Your task to perform on an android device: turn on notifications settings in the gmail app Image 0: 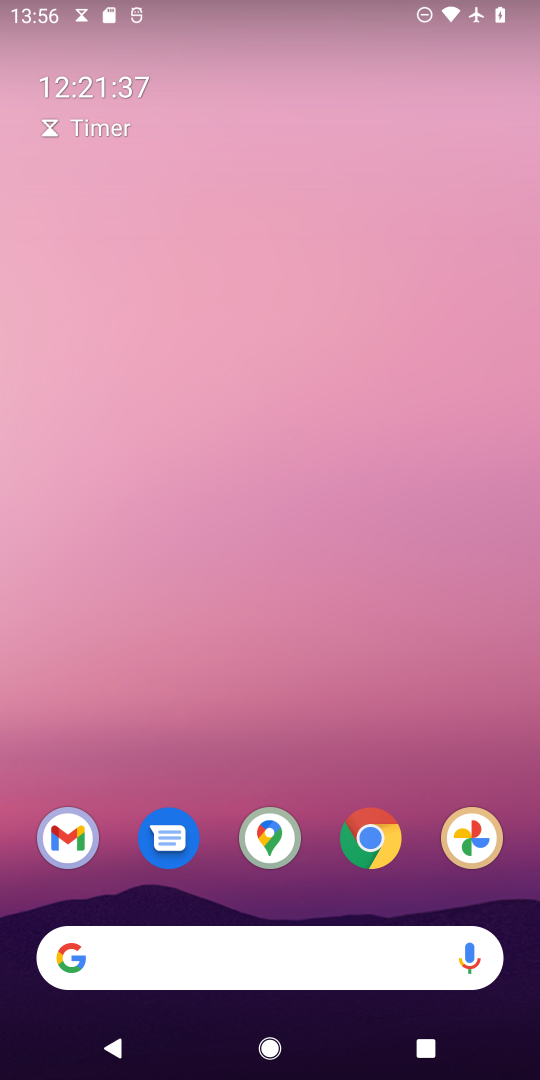
Step 0: press home button
Your task to perform on an android device: turn on notifications settings in the gmail app Image 1: 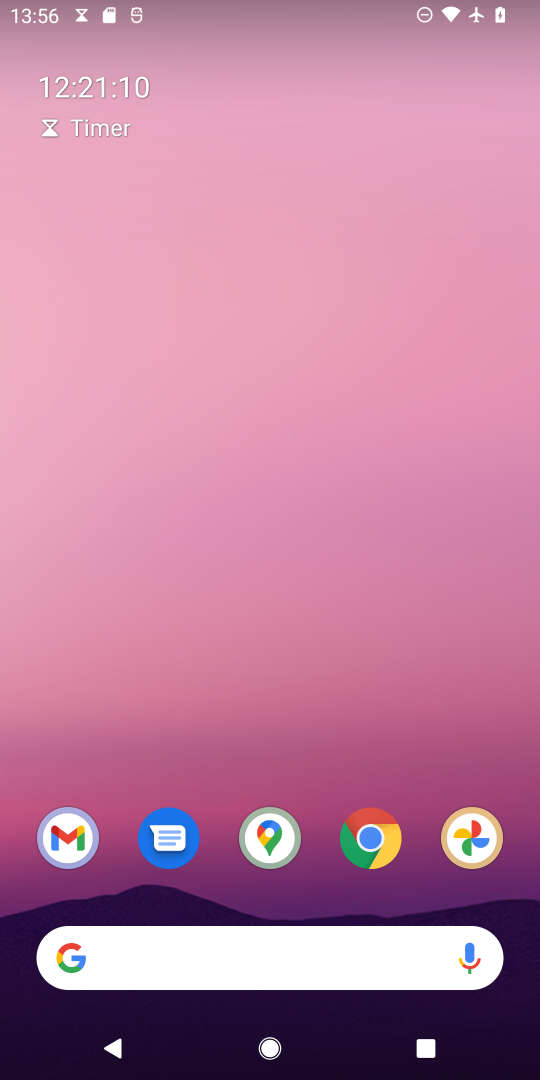
Step 1: click (68, 839)
Your task to perform on an android device: turn on notifications settings in the gmail app Image 2: 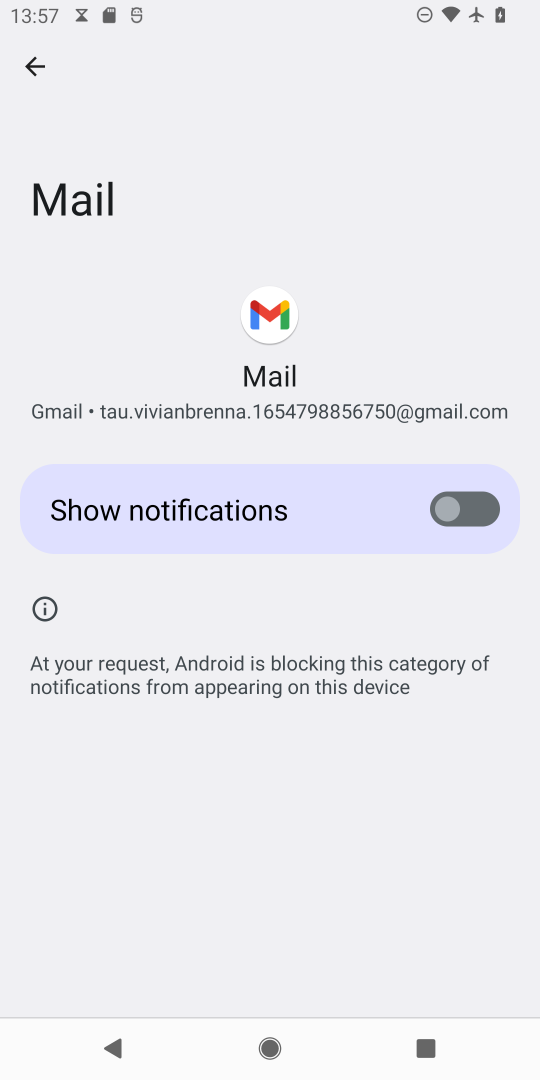
Step 2: click (451, 496)
Your task to perform on an android device: turn on notifications settings in the gmail app Image 3: 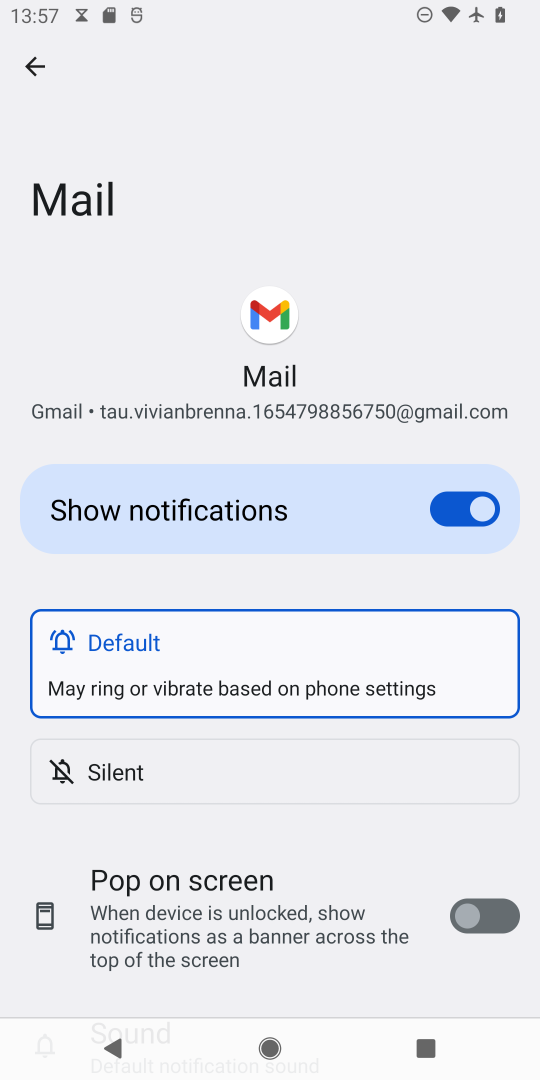
Step 3: task complete